Your task to perform on an android device: all mails in gmail Image 0: 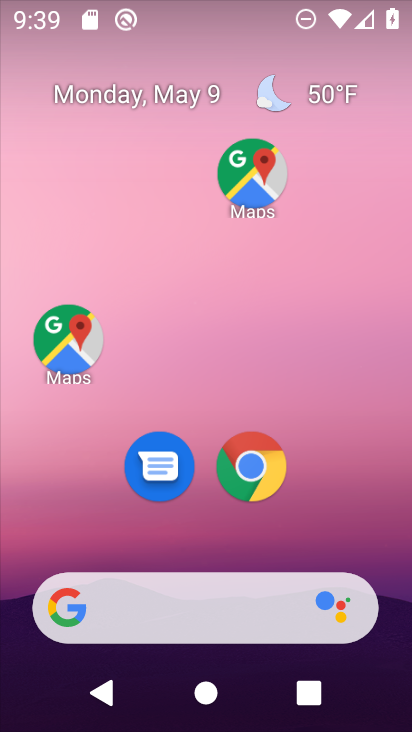
Step 0: drag from (195, 542) to (160, 175)
Your task to perform on an android device: all mails in gmail Image 1: 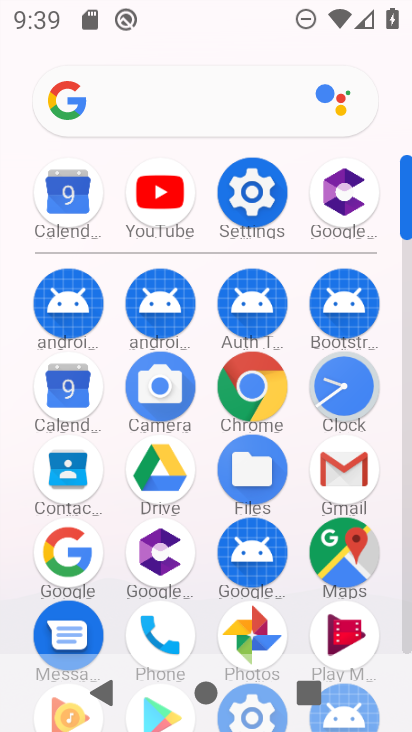
Step 1: click (346, 471)
Your task to perform on an android device: all mails in gmail Image 2: 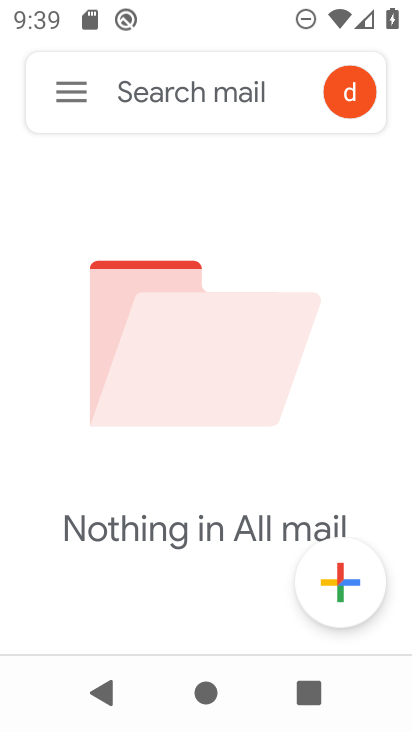
Step 2: click (60, 108)
Your task to perform on an android device: all mails in gmail Image 3: 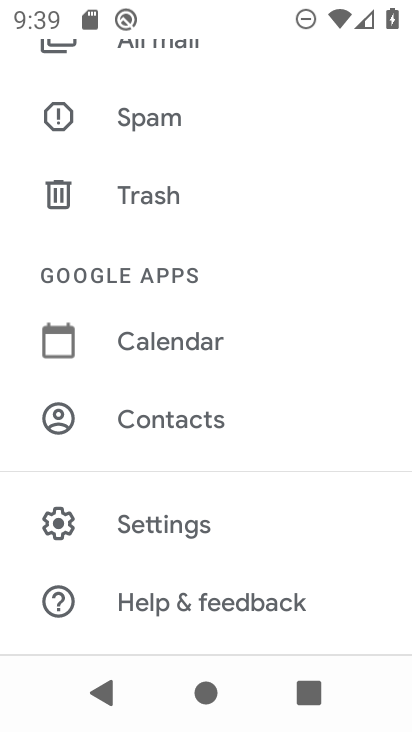
Step 3: drag from (57, 218) to (109, 413)
Your task to perform on an android device: all mails in gmail Image 4: 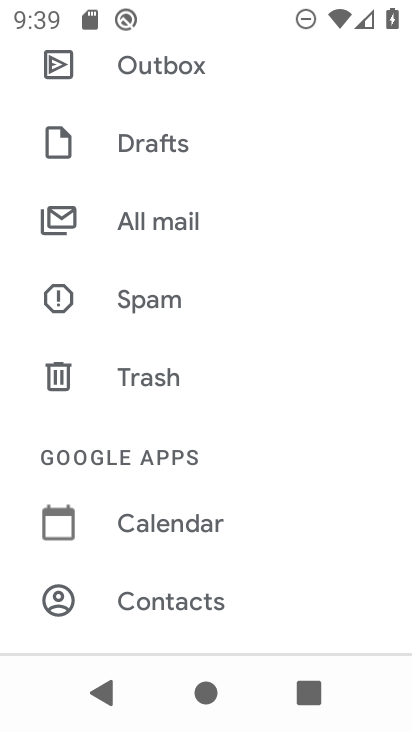
Step 4: click (168, 206)
Your task to perform on an android device: all mails in gmail Image 5: 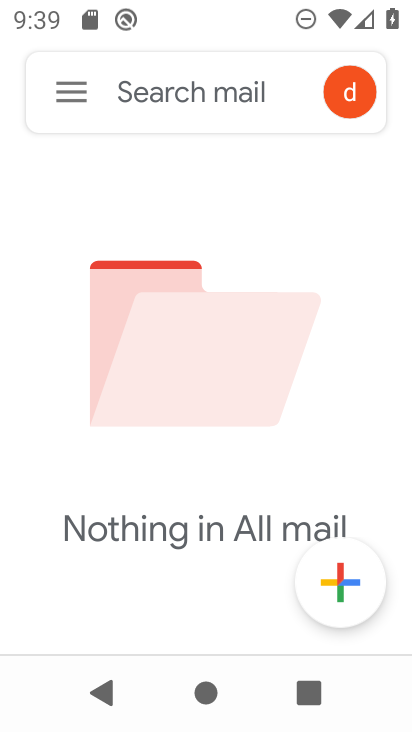
Step 5: task complete